Your task to perform on an android device: toggle improve location accuracy Image 0: 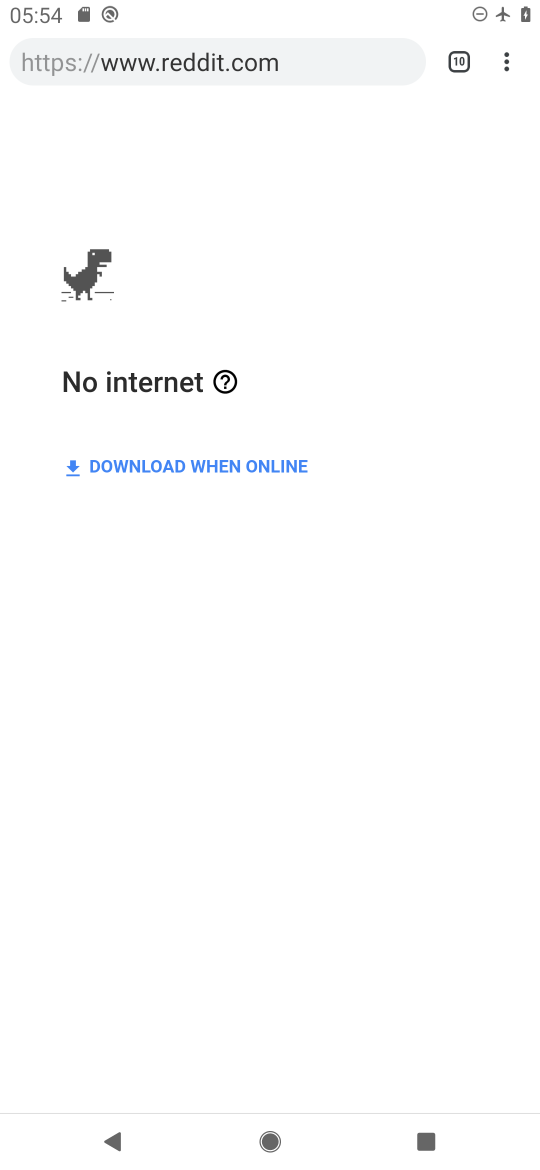
Step 0: press home button
Your task to perform on an android device: toggle improve location accuracy Image 1: 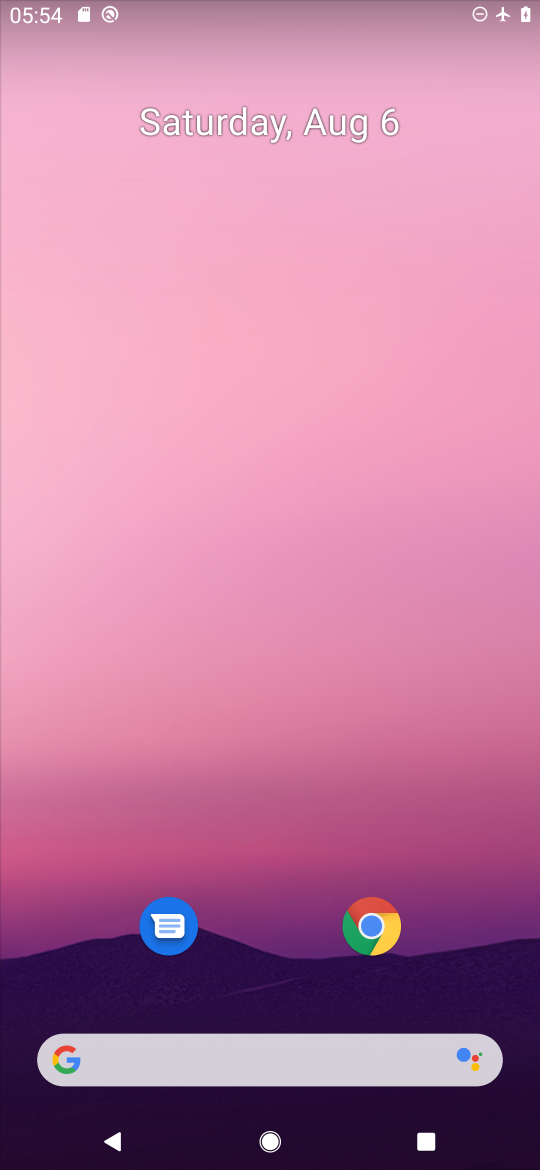
Step 1: drag from (294, 868) to (261, 284)
Your task to perform on an android device: toggle improve location accuracy Image 2: 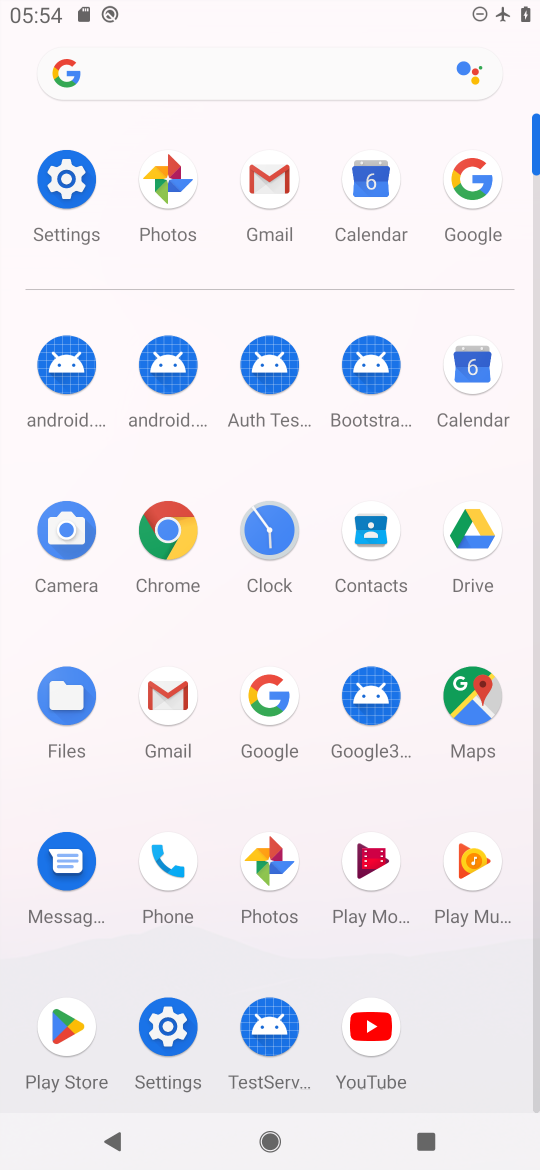
Step 2: click (82, 206)
Your task to perform on an android device: toggle improve location accuracy Image 3: 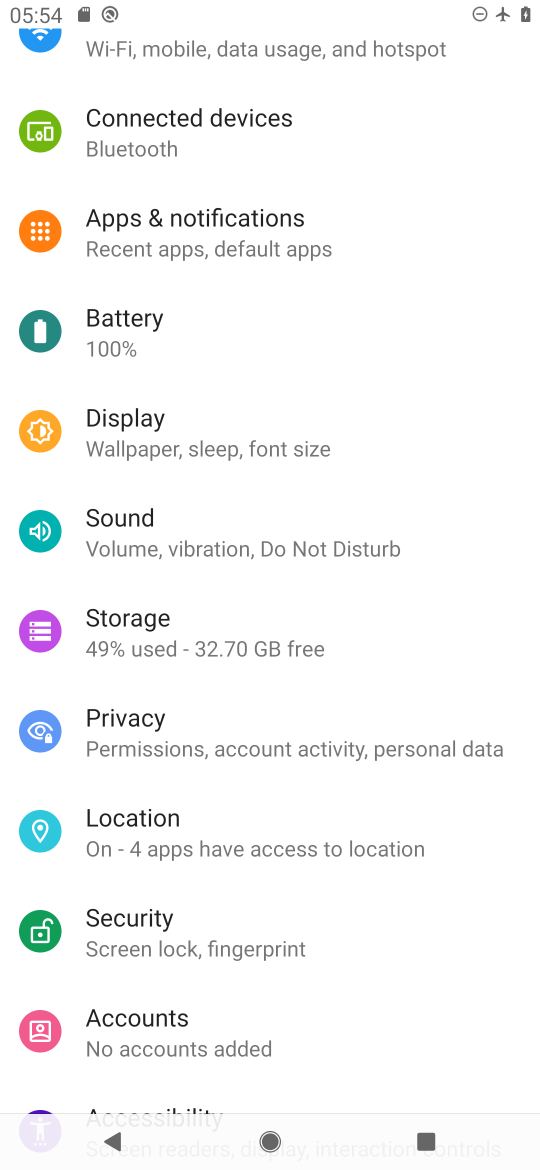
Step 3: click (248, 830)
Your task to perform on an android device: toggle improve location accuracy Image 4: 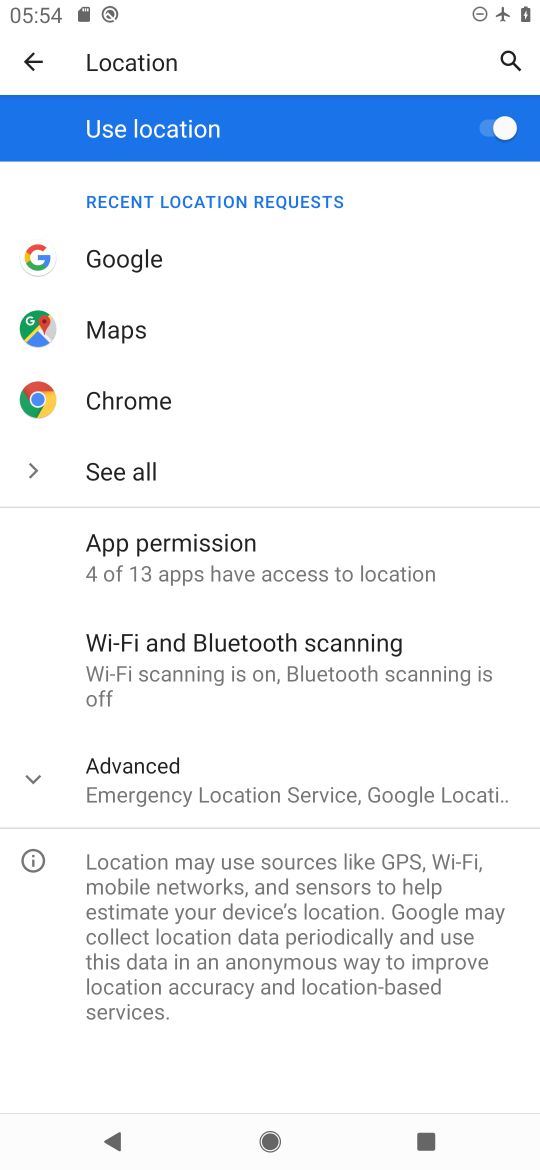
Step 4: click (239, 765)
Your task to perform on an android device: toggle improve location accuracy Image 5: 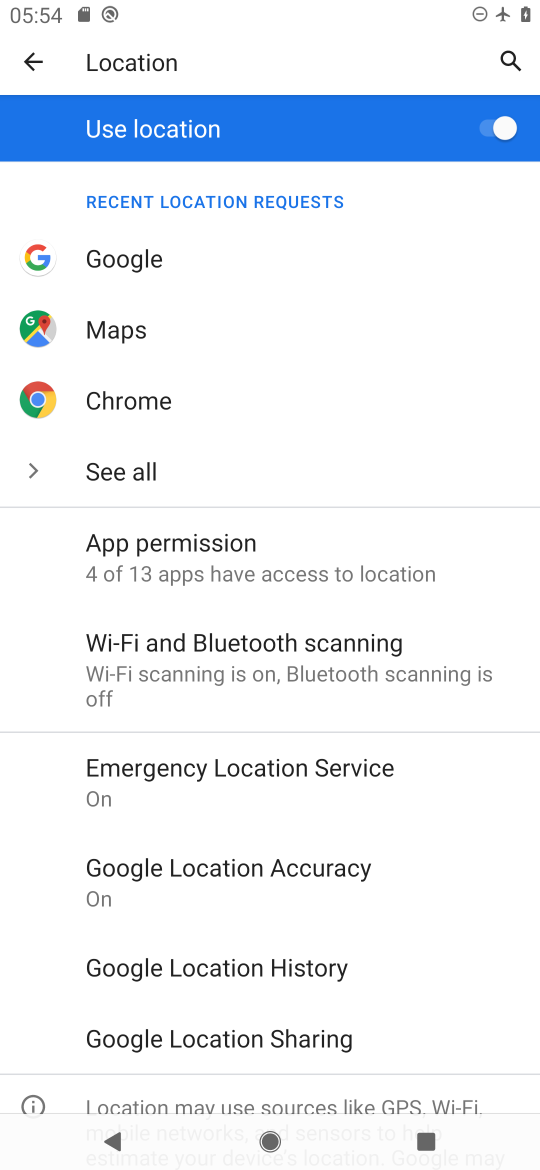
Step 5: click (261, 852)
Your task to perform on an android device: toggle improve location accuracy Image 6: 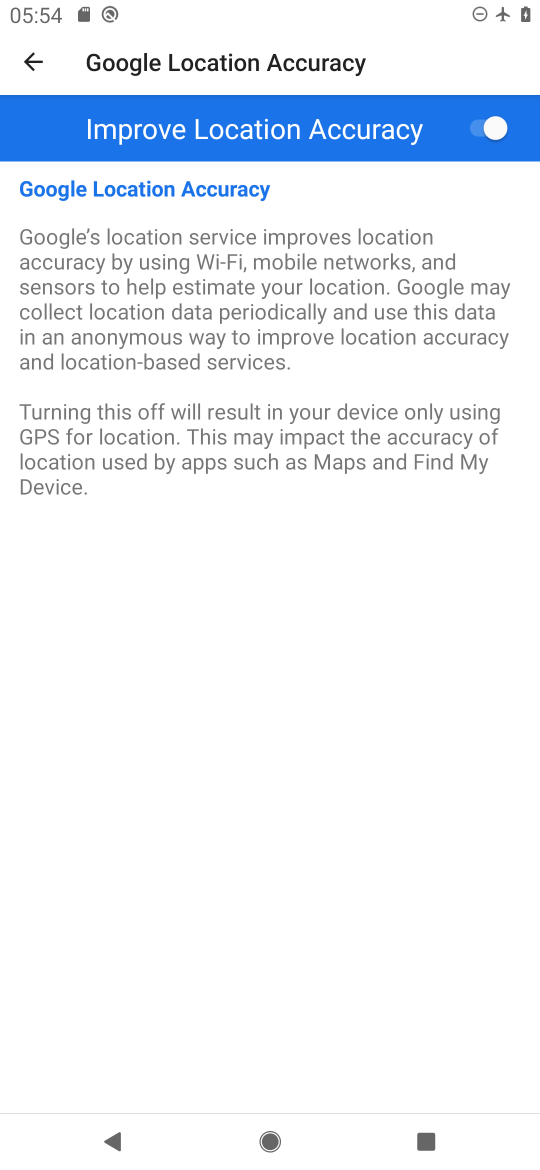
Step 6: click (481, 131)
Your task to perform on an android device: toggle improve location accuracy Image 7: 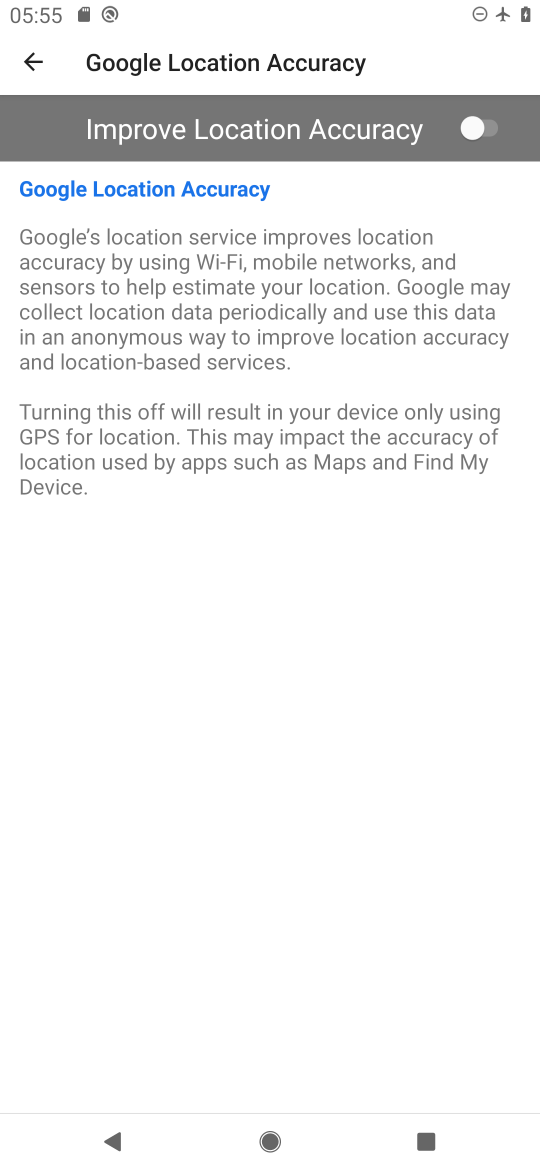
Step 7: task complete